Your task to perform on an android device: open app "Roku - Official Remote Control" (install if not already installed), go to login, and select forgot password Image 0: 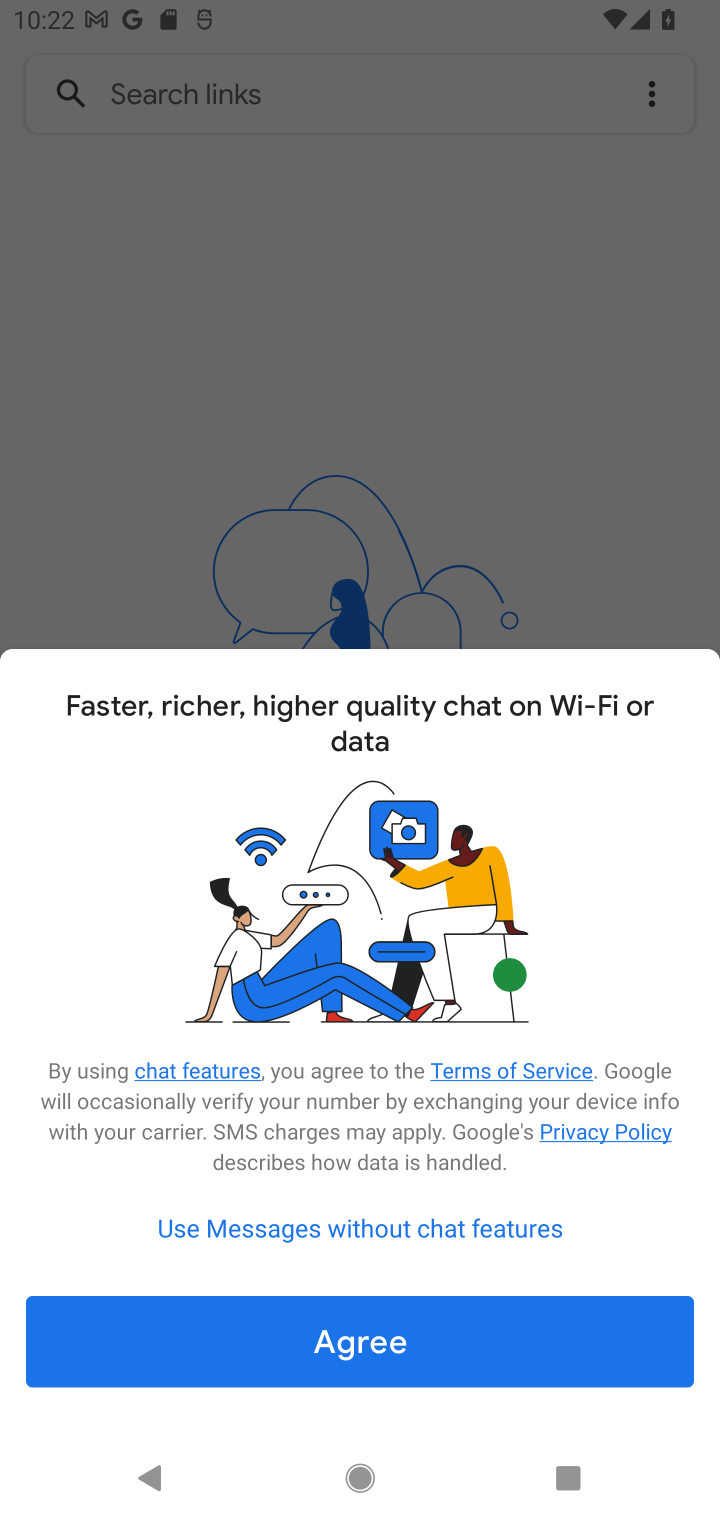
Step 0: press home button
Your task to perform on an android device: open app "Roku - Official Remote Control" (install if not already installed), go to login, and select forgot password Image 1: 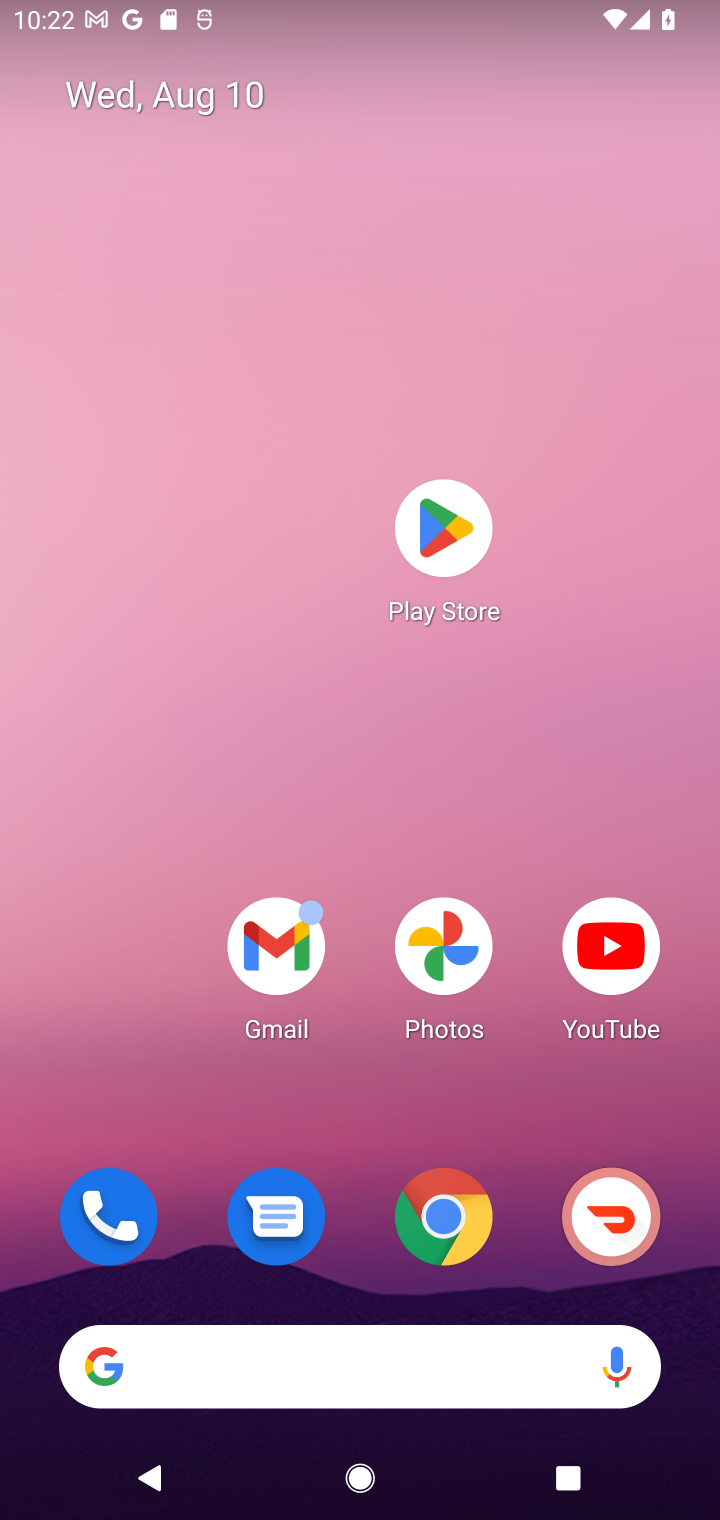
Step 1: click (450, 510)
Your task to perform on an android device: open app "Roku - Official Remote Control" (install if not already installed), go to login, and select forgot password Image 2: 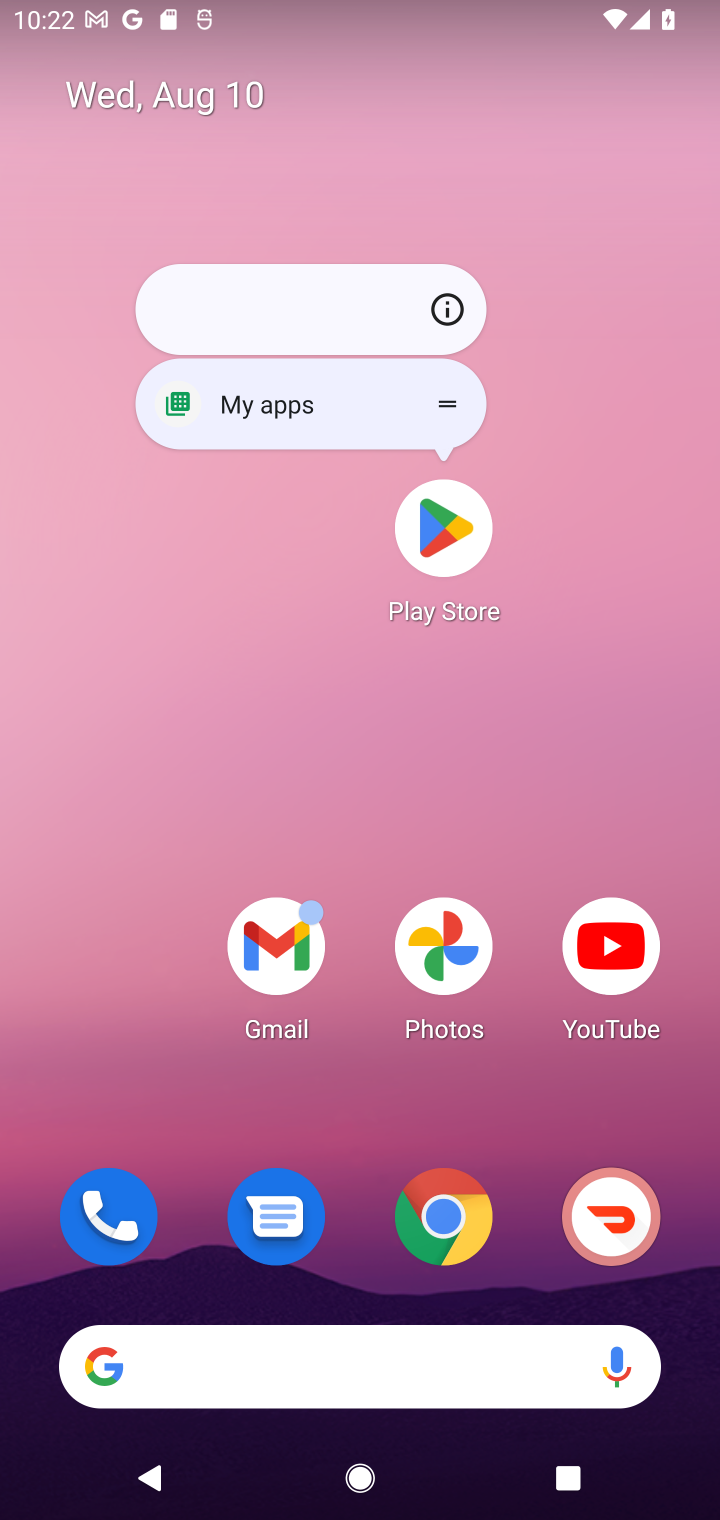
Step 2: click (450, 514)
Your task to perform on an android device: open app "Roku - Official Remote Control" (install if not already installed), go to login, and select forgot password Image 3: 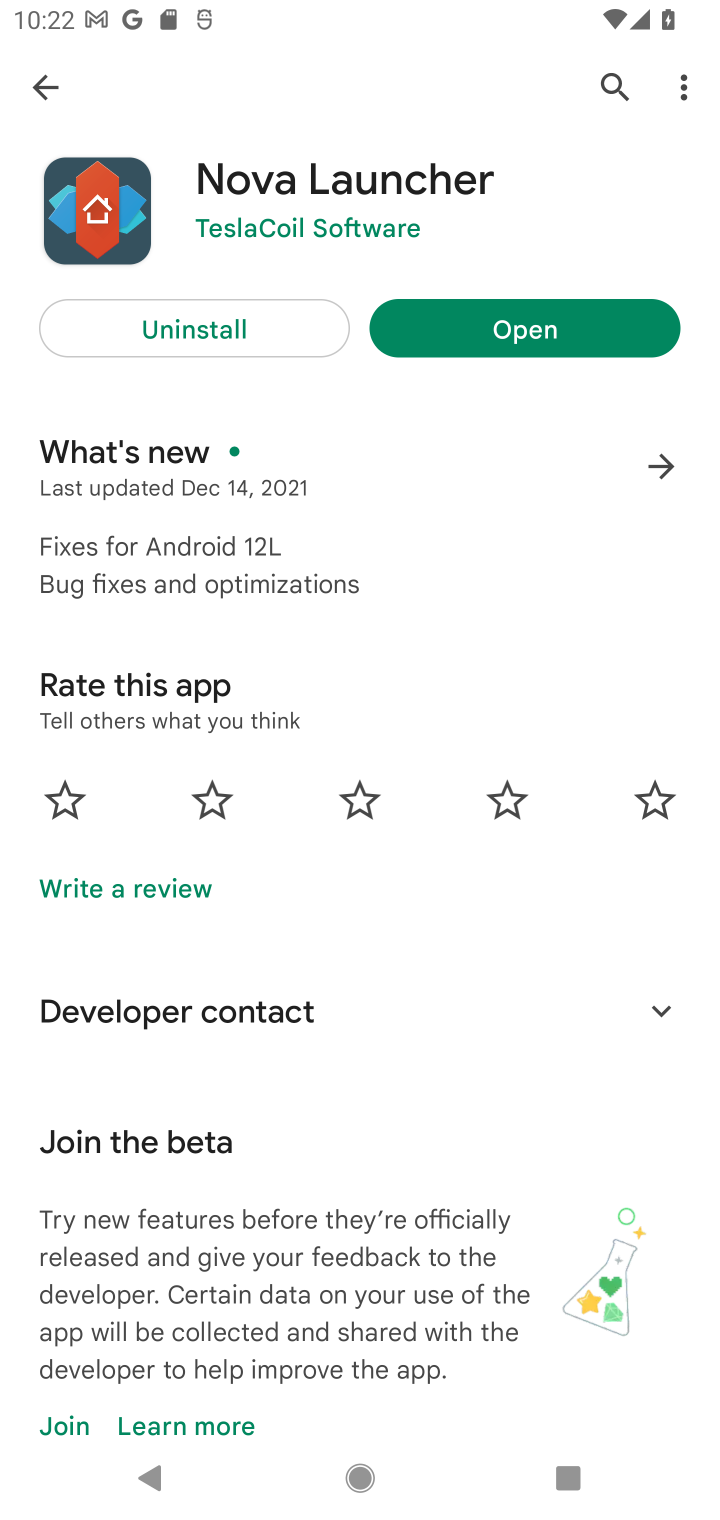
Step 3: click (617, 79)
Your task to perform on an android device: open app "Roku - Official Remote Control" (install if not already installed), go to login, and select forgot password Image 4: 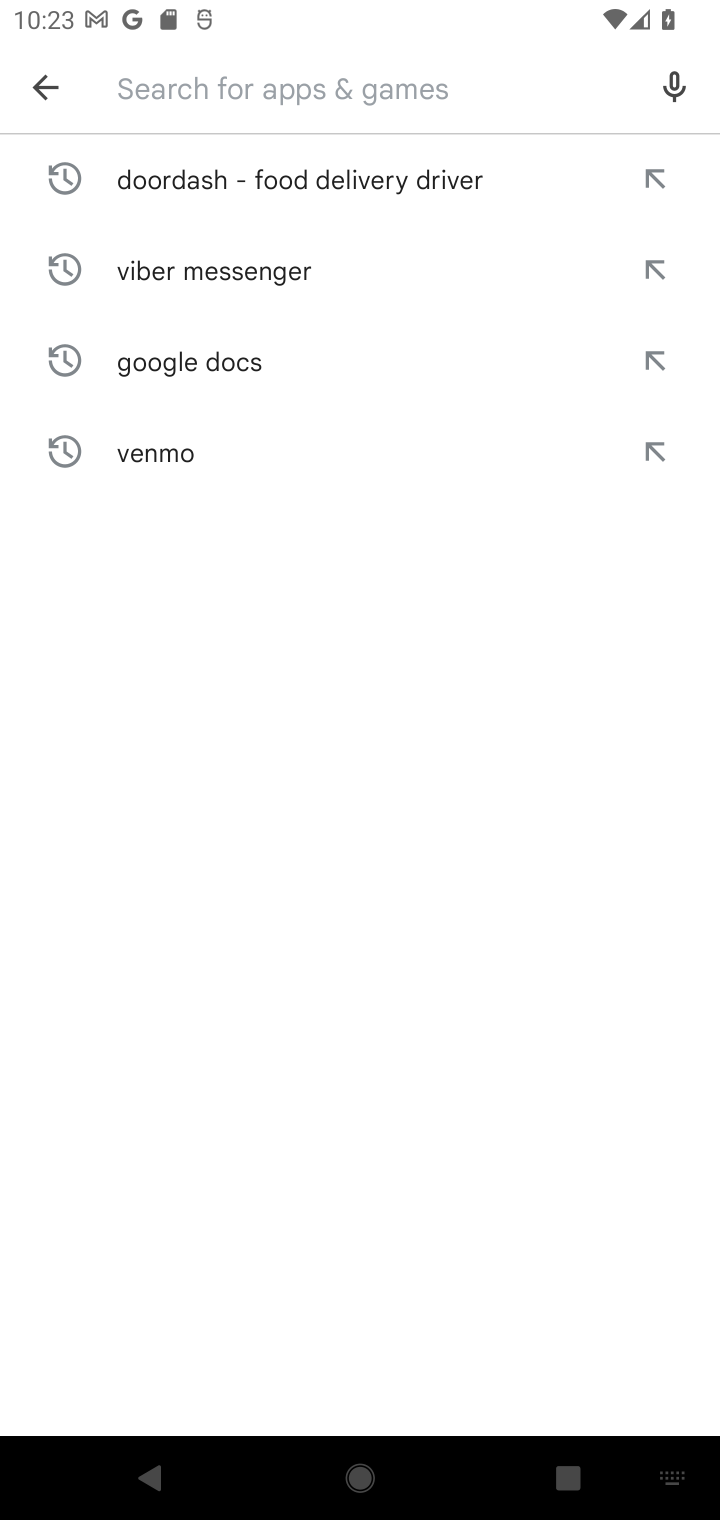
Step 4: click (245, 166)
Your task to perform on an android device: open app "Roku - Official Remote Control" (install if not already installed), go to login, and select forgot password Image 5: 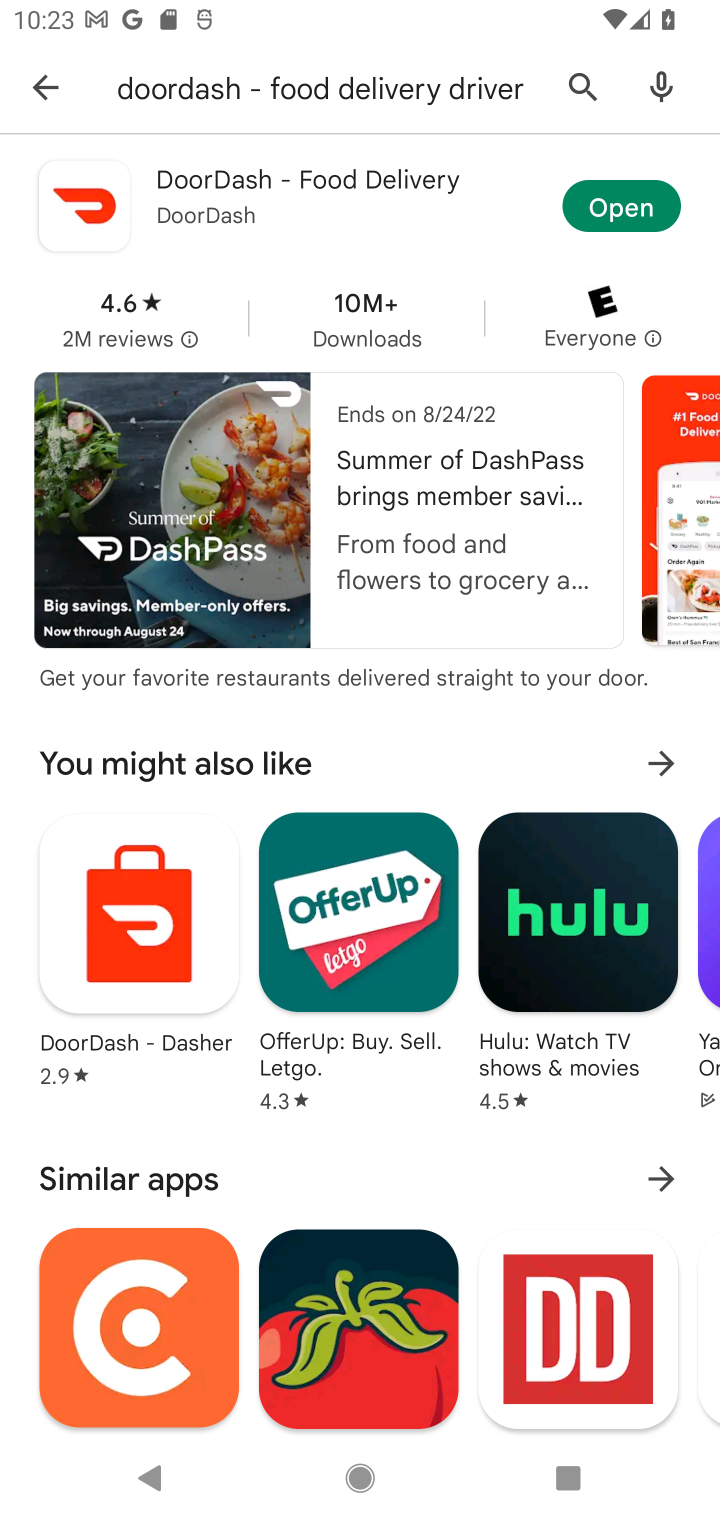
Step 5: click (581, 81)
Your task to perform on an android device: open app "Roku - Official Remote Control" (install if not already installed), go to login, and select forgot password Image 6: 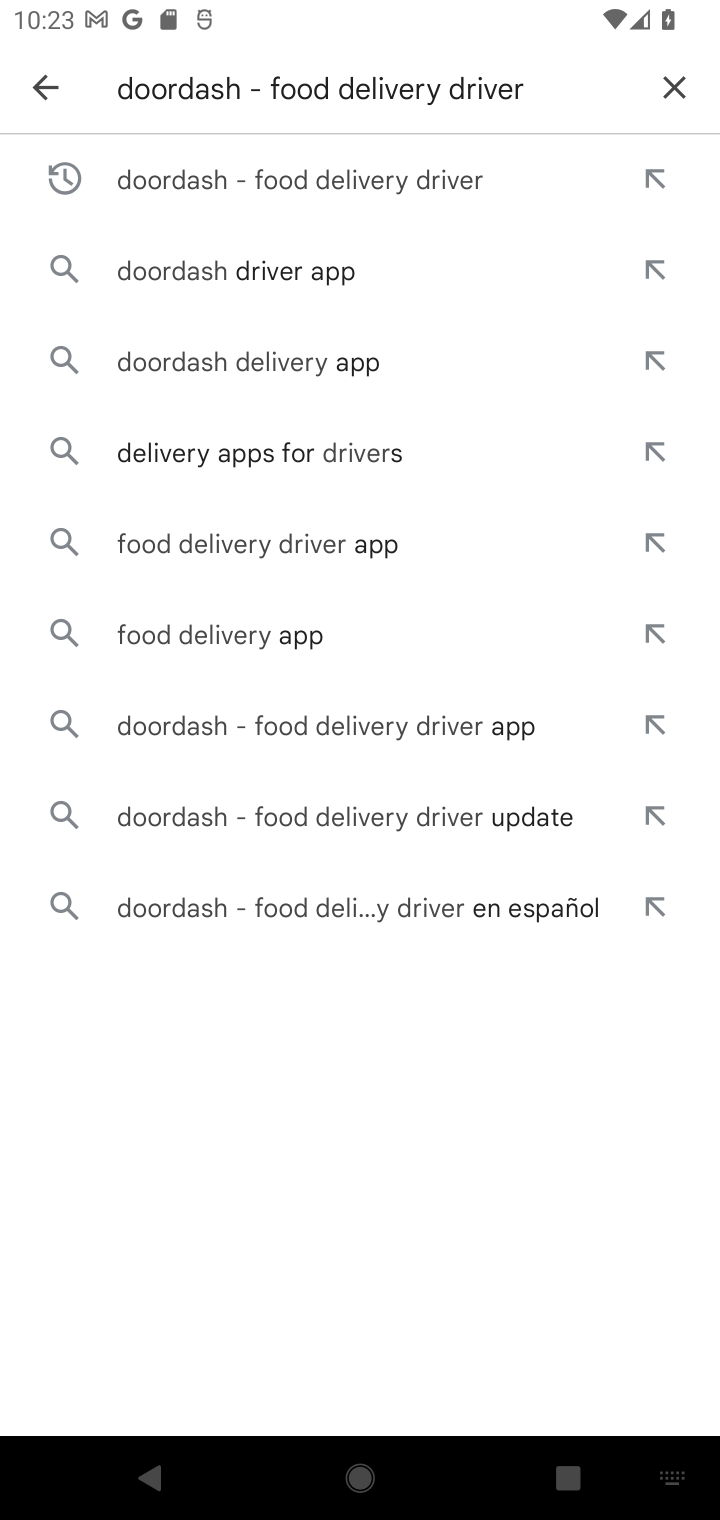
Step 6: click (663, 75)
Your task to perform on an android device: open app "Roku - Official Remote Control" (install if not already installed), go to login, and select forgot password Image 7: 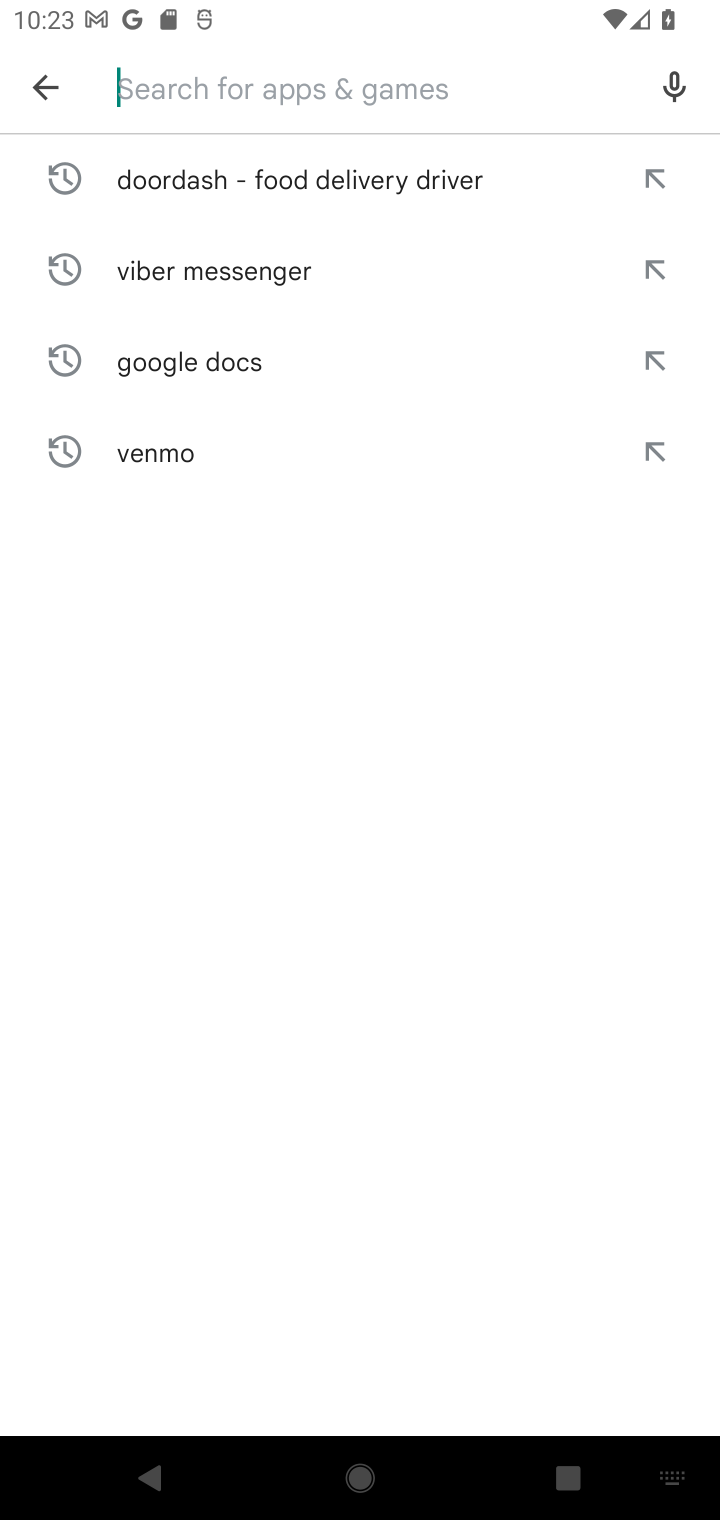
Step 7: type "Roku - Official Remote Control"
Your task to perform on an android device: open app "Roku - Official Remote Control" (install if not already installed), go to login, and select forgot password Image 8: 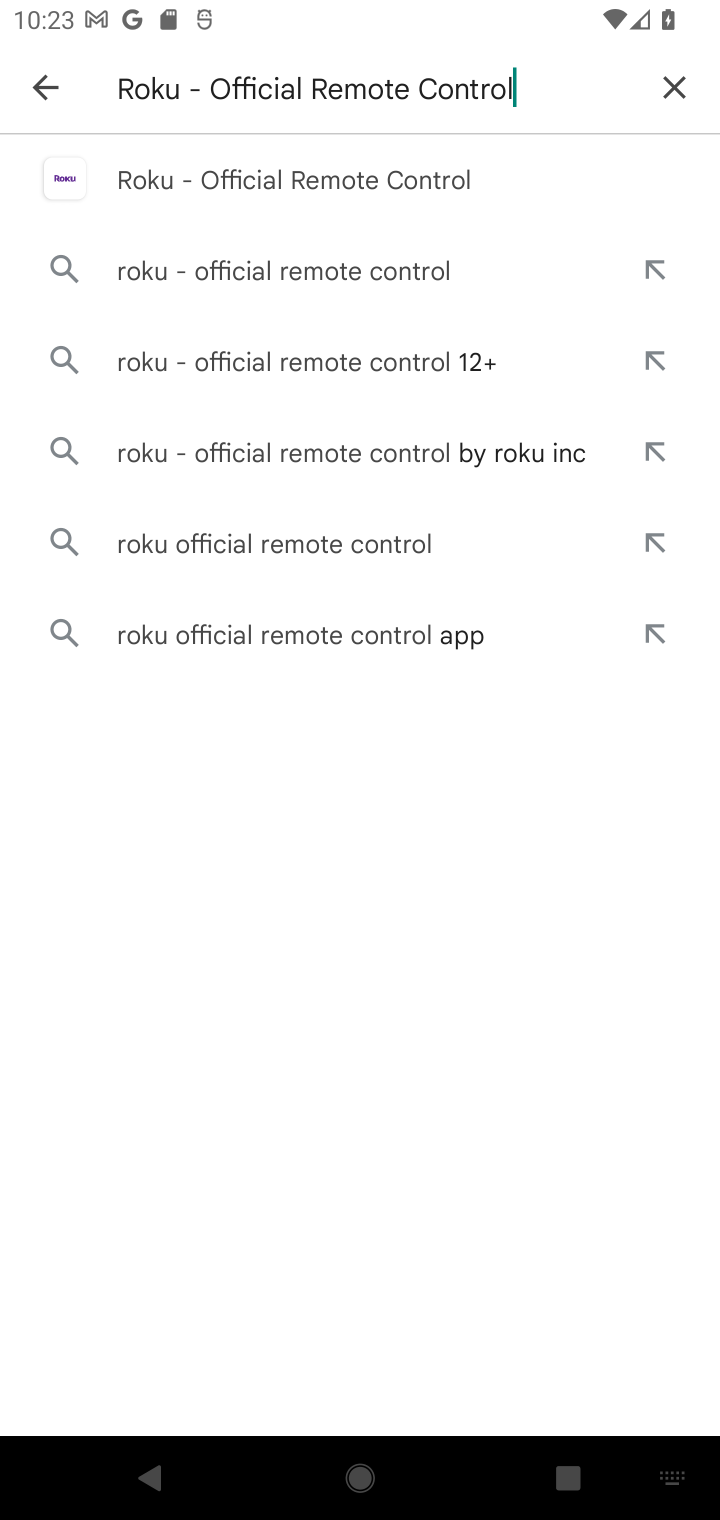
Step 8: click (236, 189)
Your task to perform on an android device: open app "Roku - Official Remote Control" (install if not already installed), go to login, and select forgot password Image 9: 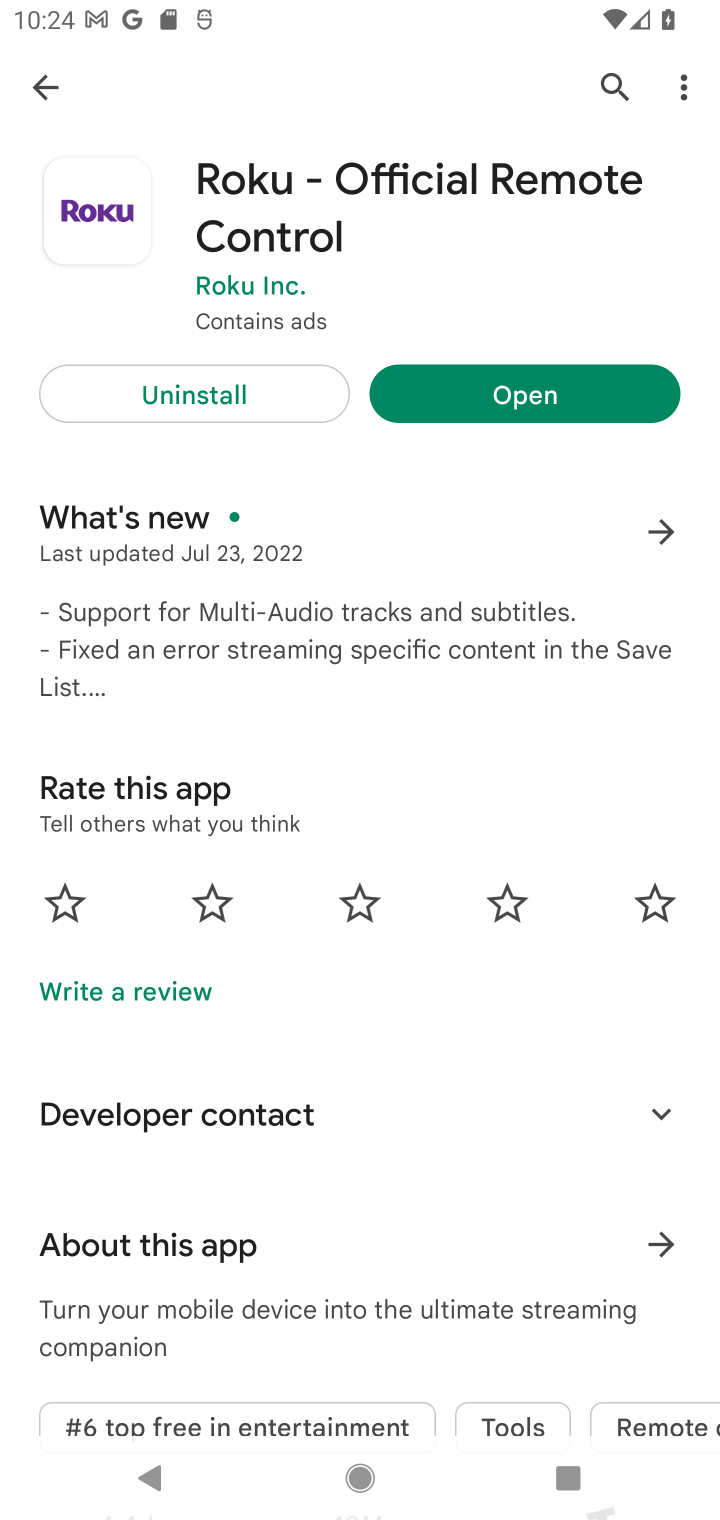
Step 9: click (507, 386)
Your task to perform on an android device: open app "Roku - Official Remote Control" (install if not already installed), go to login, and select forgot password Image 10: 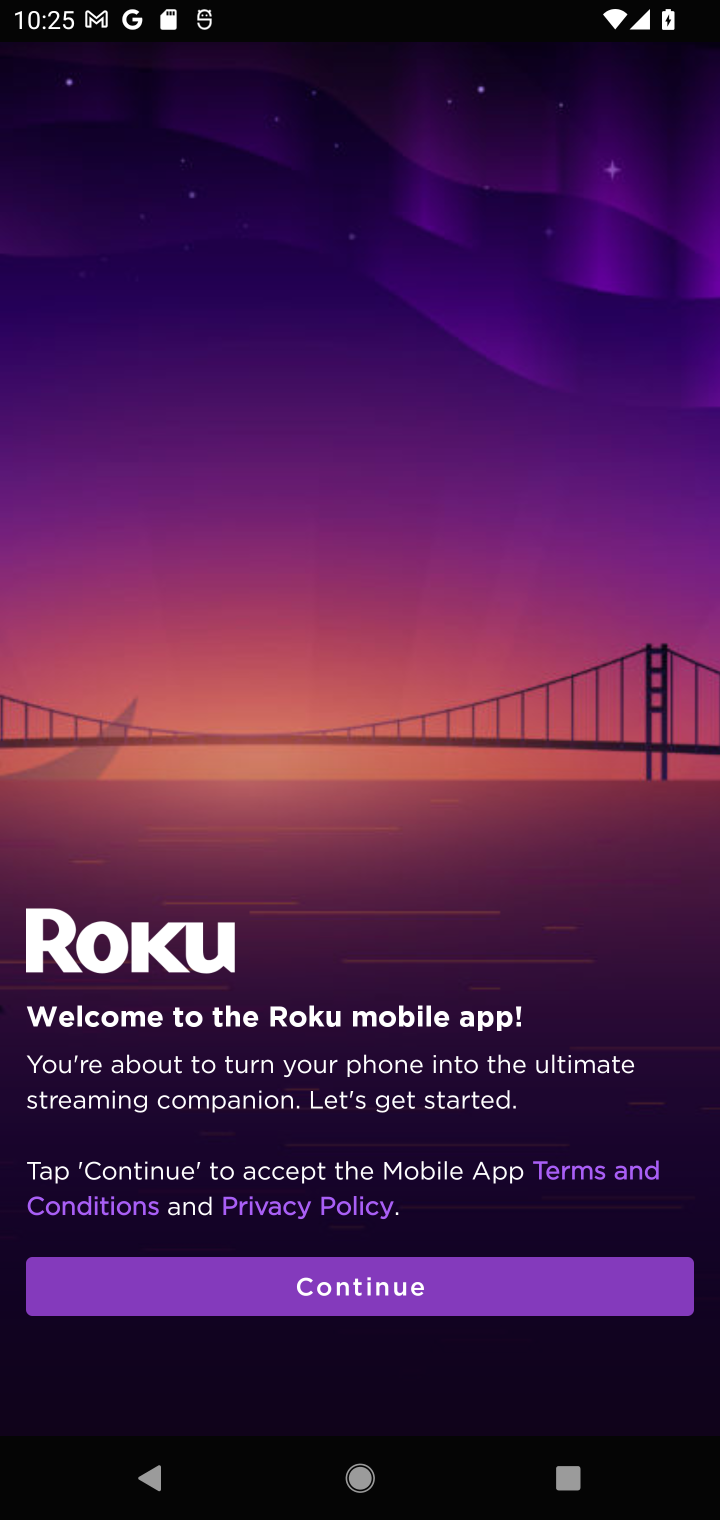
Step 10: task complete